Your task to perform on an android device: What is the news today? Image 0: 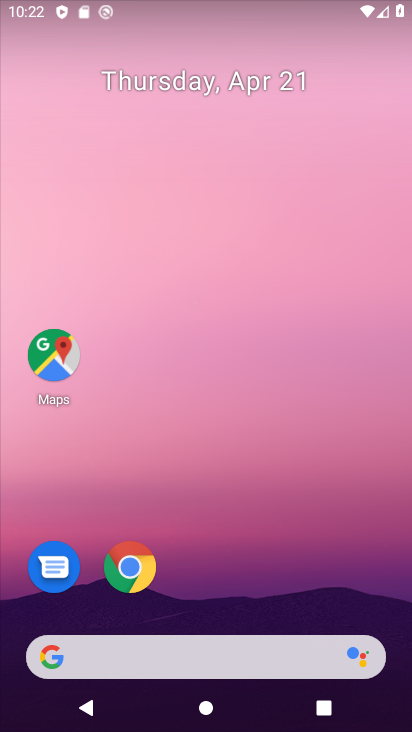
Step 0: drag from (218, 479) to (192, 12)
Your task to perform on an android device: What is the news today? Image 1: 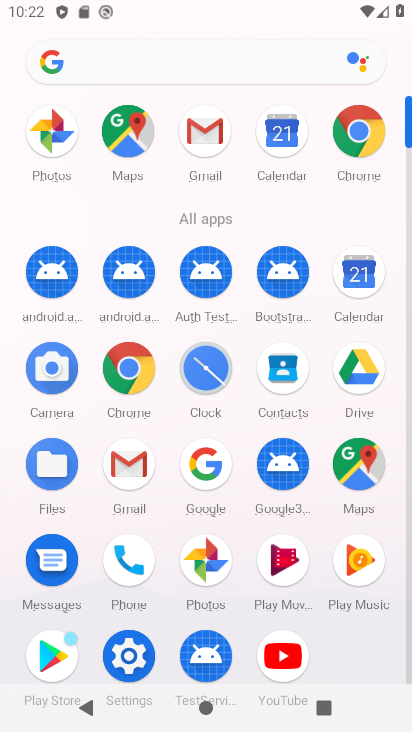
Step 1: click (204, 463)
Your task to perform on an android device: What is the news today? Image 2: 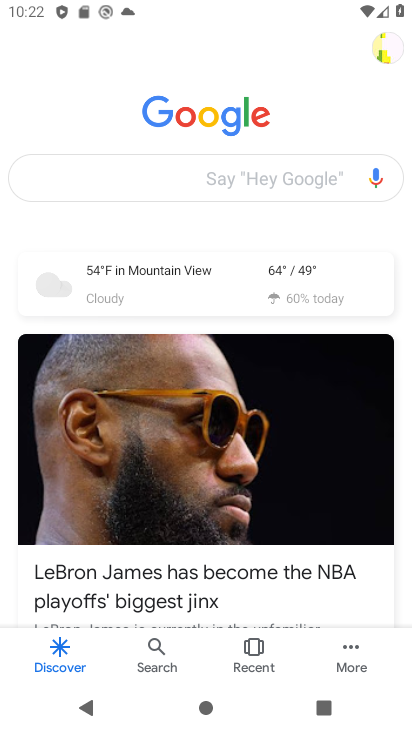
Step 2: click (265, 170)
Your task to perform on an android device: What is the news today? Image 3: 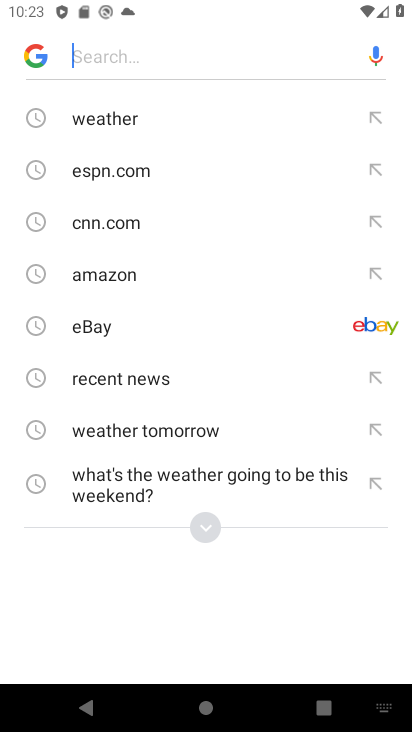
Step 3: drag from (237, 402) to (265, 190)
Your task to perform on an android device: What is the news today? Image 4: 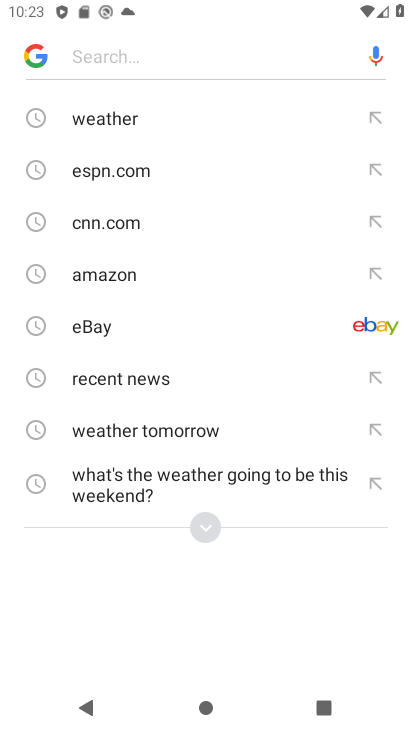
Step 4: click (210, 65)
Your task to perform on an android device: What is the news today? Image 5: 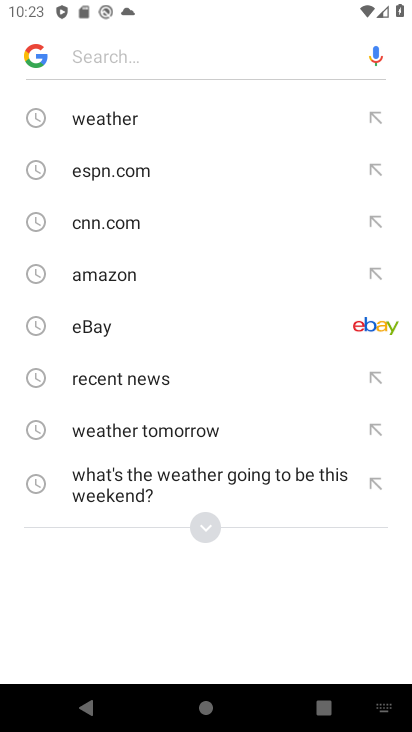
Step 5: type "news today"
Your task to perform on an android device: What is the news today? Image 6: 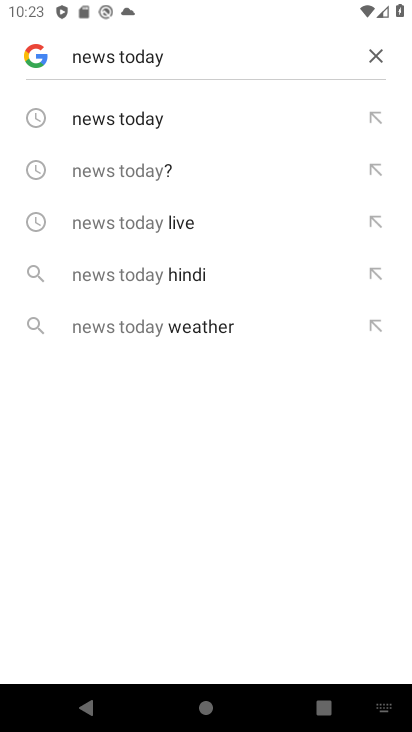
Step 6: click (142, 172)
Your task to perform on an android device: What is the news today? Image 7: 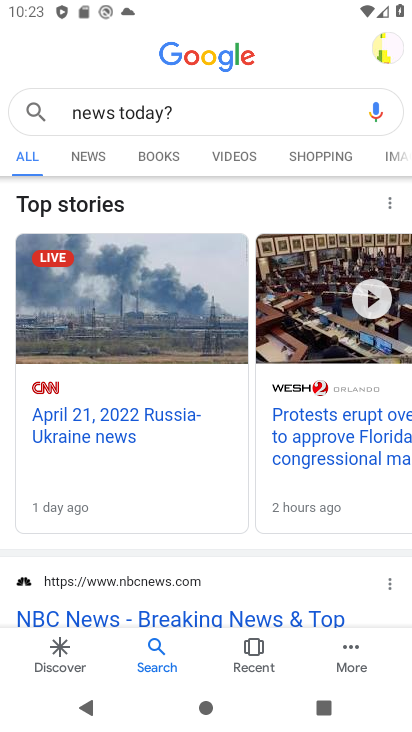
Step 7: task complete